Your task to perform on an android device: Open my contact list Image 0: 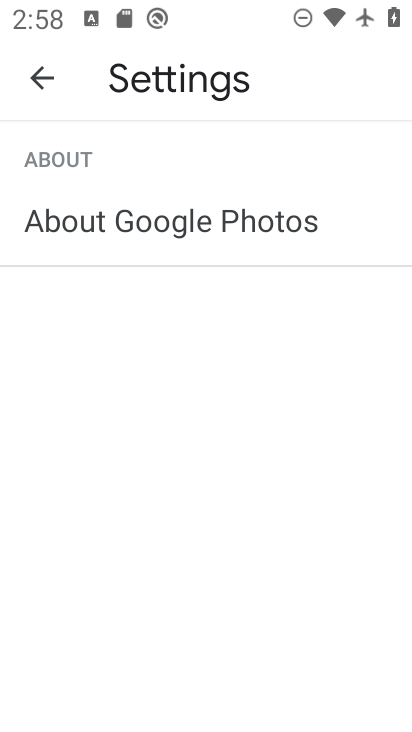
Step 0: press home button
Your task to perform on an android device: Open my contact list Image 1: 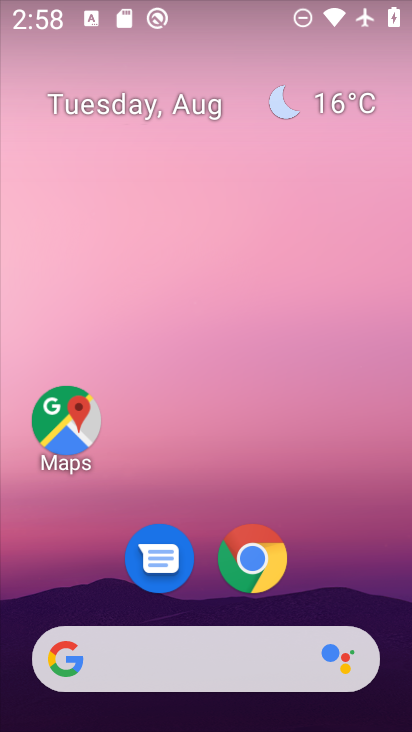
Step 1: drag from (202, 474) to (207, 110)
Your task to perform on an android device: Open my contact list Image 2: 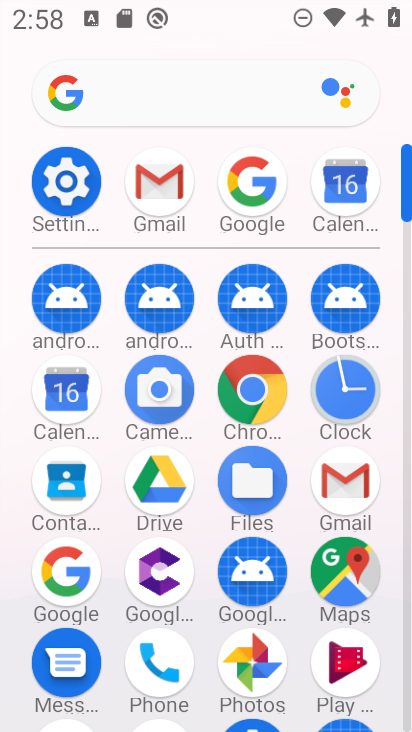
Step 2: click (68, 486)
Your task to perform on an android device: Open my contact list Image 3: 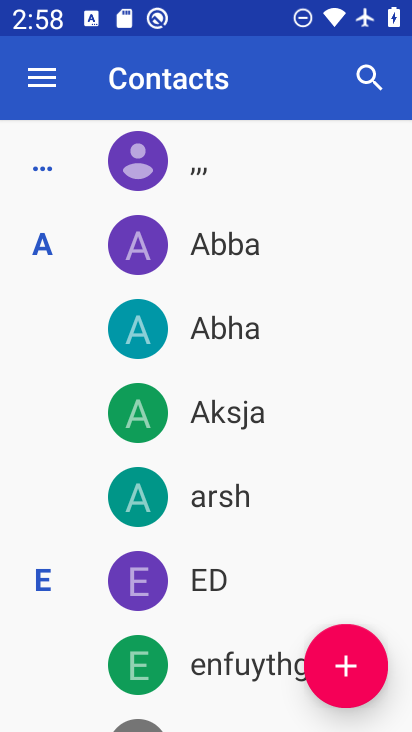
Step 3: task complete